Your task to perform on an android device: change notification settings in the gmail app Image 0: 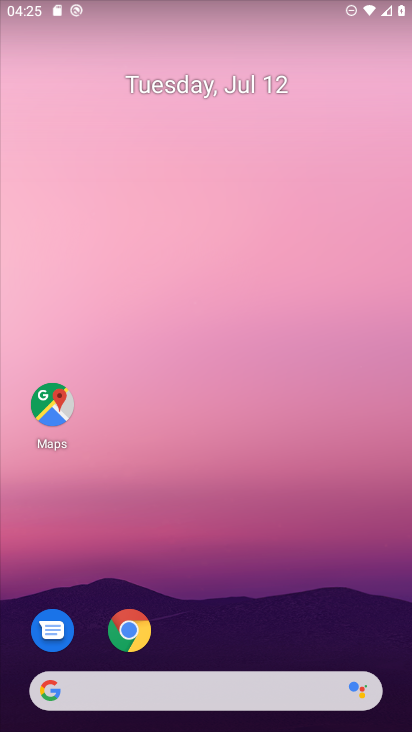
Step 0: drag from (382, 641) to (300, 41)
Your task to perform on an android device: change notification settings in the gmail app Image 1: 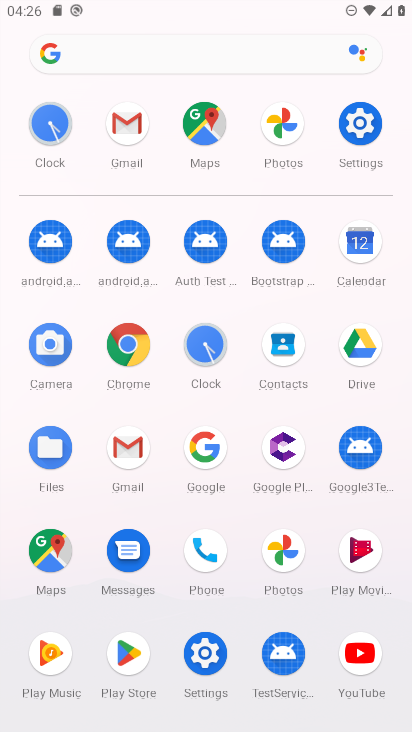
Step 1: click (127, 449)
Your task to perform on an android device: change notification settings in the gmail app Image 2: 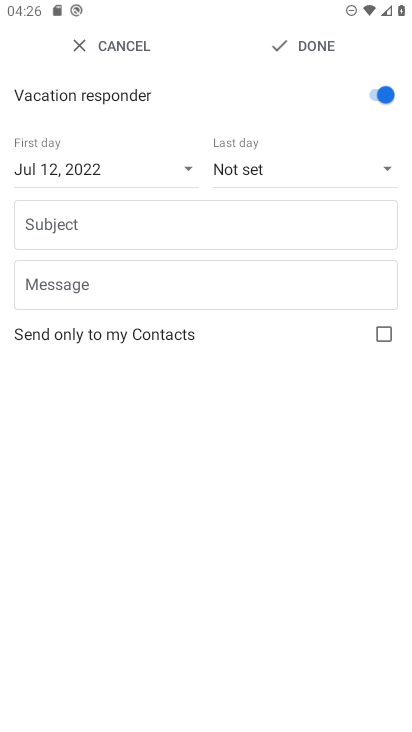
Step 2: press back button
Your task to perform on an android device: change notification settings in the gmail app Image 3: 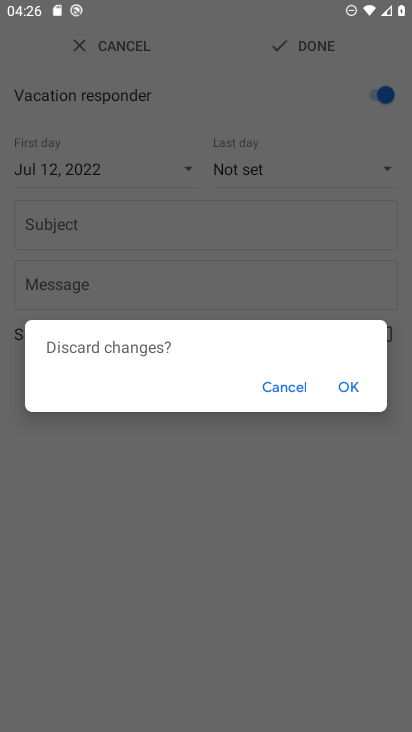
Step 3: click (282, 391)
Your task to perform on an android device: change notification settings in the gmail app Image 4: 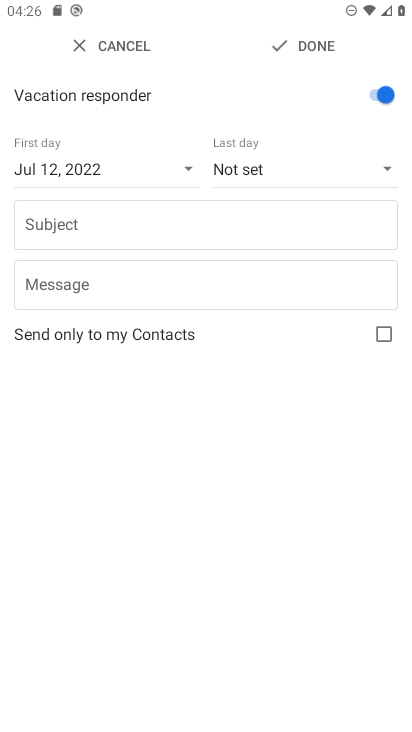
Step 4: click (81, 45)
Your task to perform on an android device: change notification settings in the gmail app Image 5: 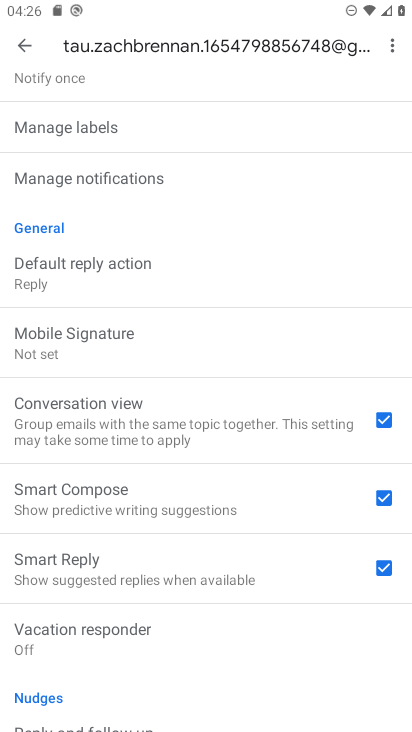
Step 5: drag from (199, 172) to (191, 354)
Your task to perform on an android device: change notification settings in the gmail app Image 6: 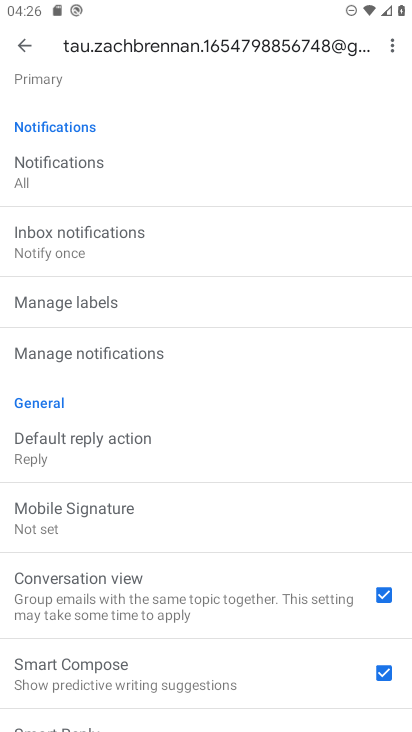
Step 6: click (82, 346)
Your task to perform on an android device: change notification settings in the gmail app Image 7: 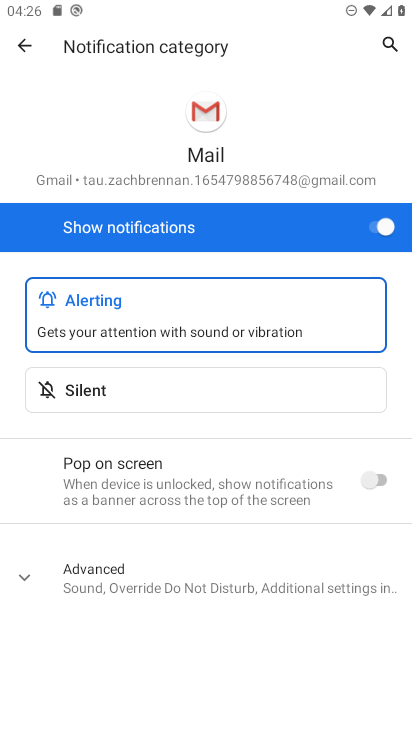
Step 7: click (374, 223)
Your task to perform on an android device: change notification settings in the gmail app Image 8: 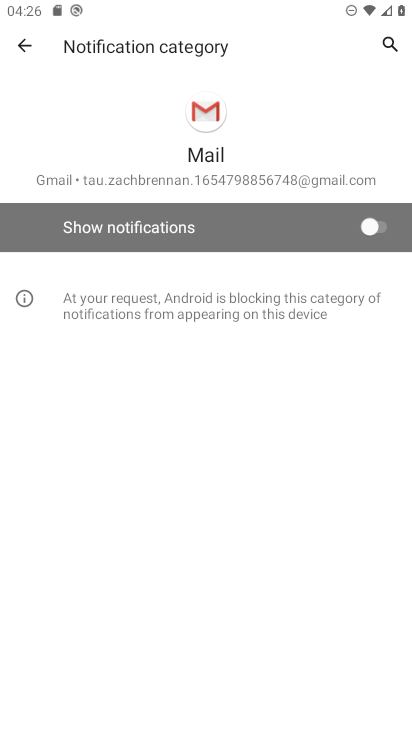
Step 8: task complete